Your task to perform on an android device: open a bookmark in the chrome app Image 0: 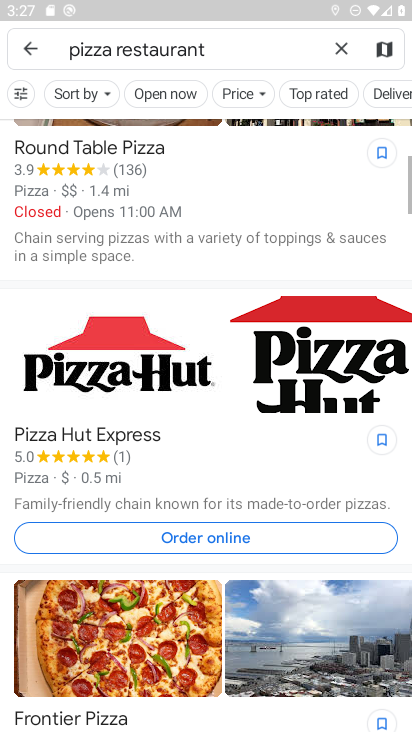
Step 0: drag from (220, 646) to (266, 44)
Your task to perform on an android device: open a bookmark in the chrome app Image 1: 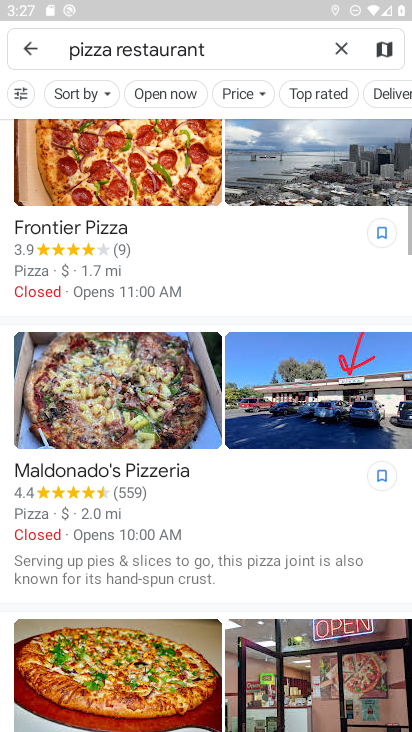
Step 1: press home button
Your task to perform on an android device: open a bookmark in the chrome app Image 2: 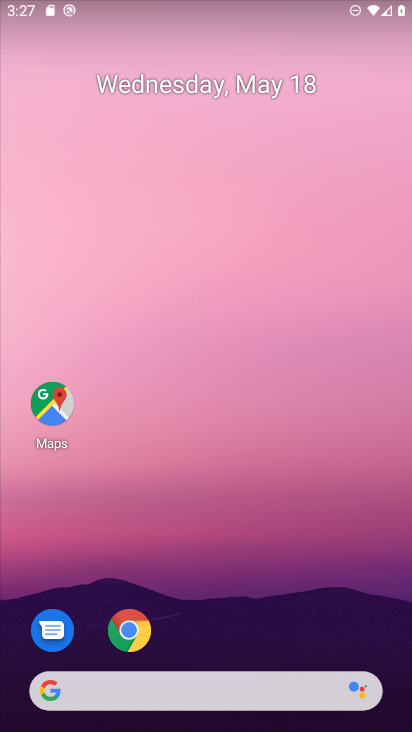
Step 2: click (126, 628)
Your task to perform on an android device: open a bookmark in the chrome app Image 3: 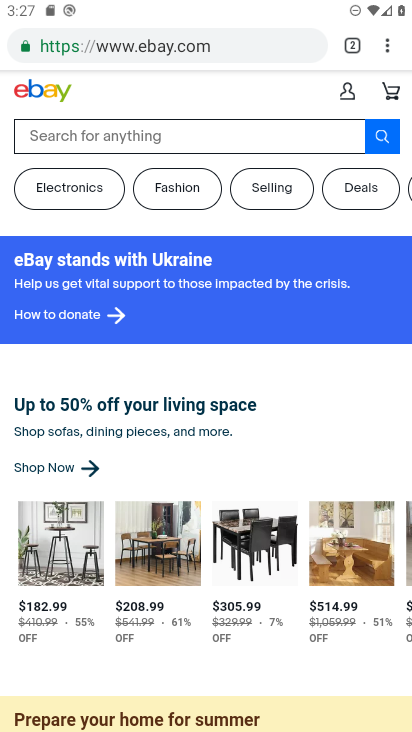
Step 3: click (389, 35)
Your task to perform on an android device: open a bookmark in the chrome app Image 4: 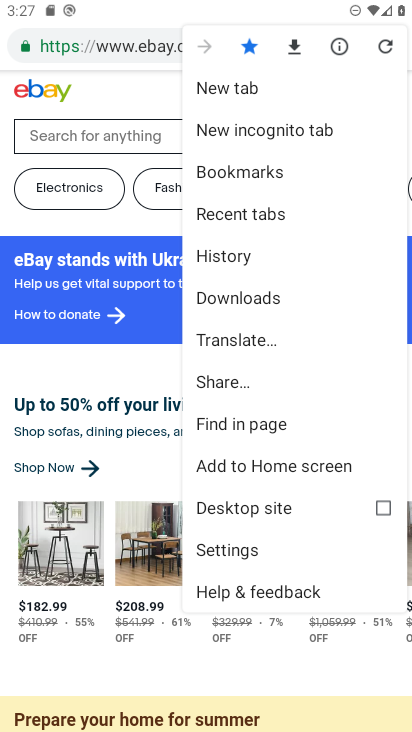
Step 4: click (317, 165)
Your task to perform on an android device: open a bookmark in the chrome app Image 5: 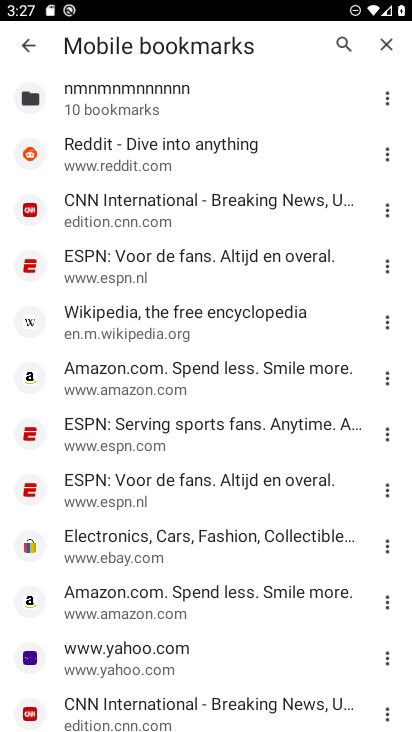
Step 5: click (217, 189)
Your task to perform on an android device: open a bookmark in the chrome app Image 6: 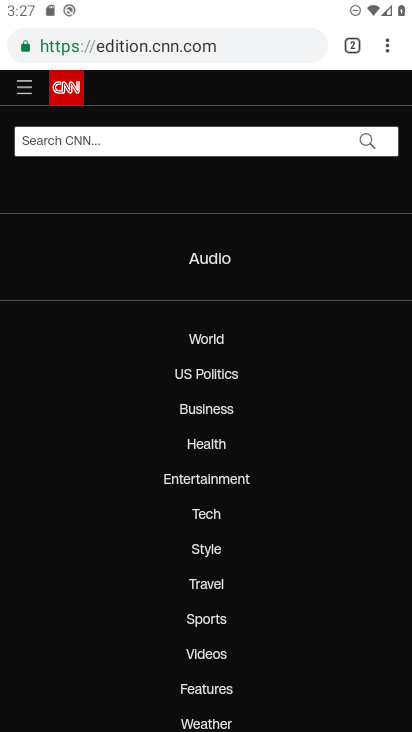
Step 6: task complete